Your task to perform on an android device: check android version Image 0: 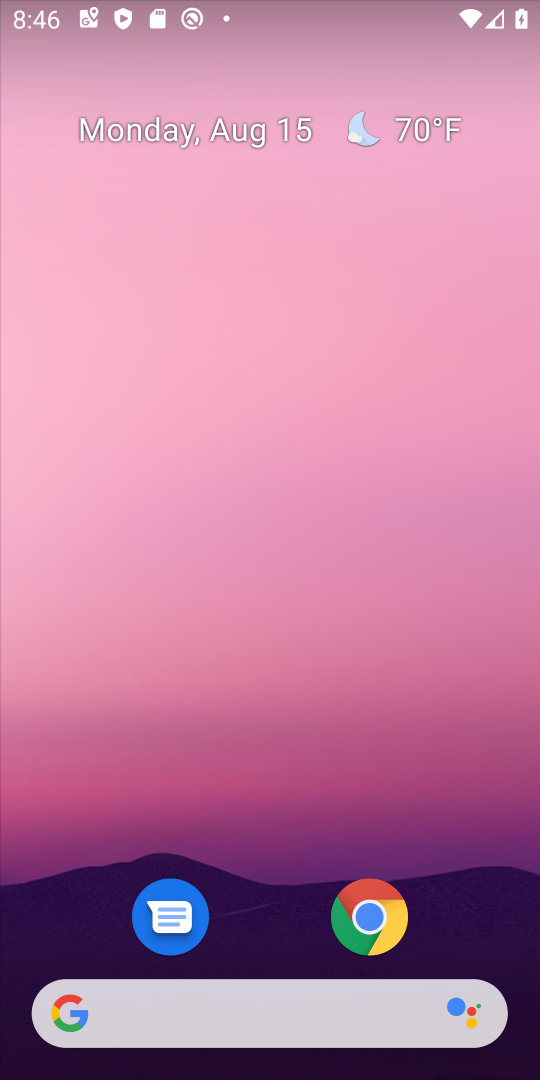
Step 0: drag from (286, 745) to (286, 0)
Your task to perform on an android device: check android version Image 1: 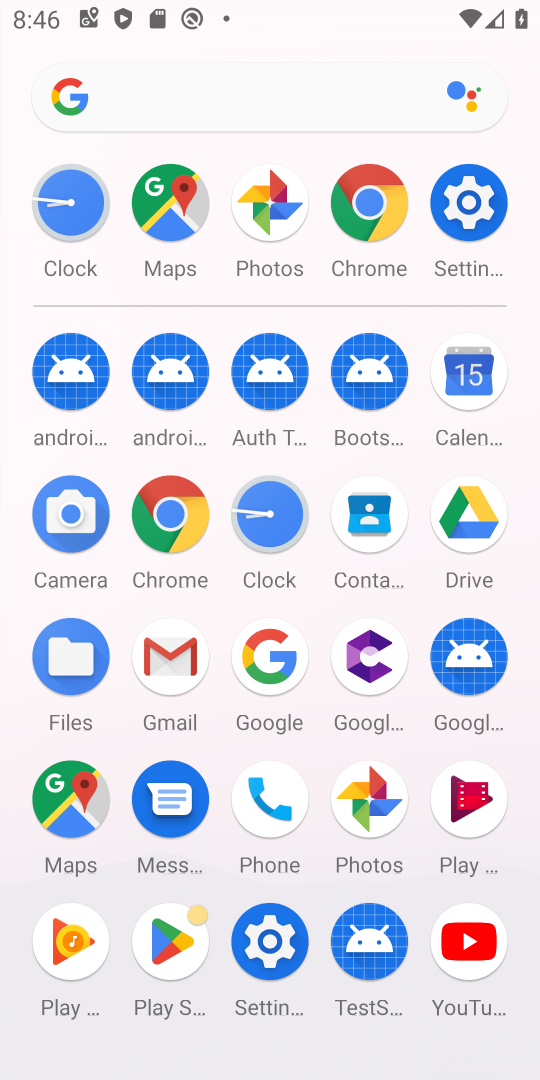
Step 1: click (461, 202)
Your task to perform on an android device: check android version Image 2: 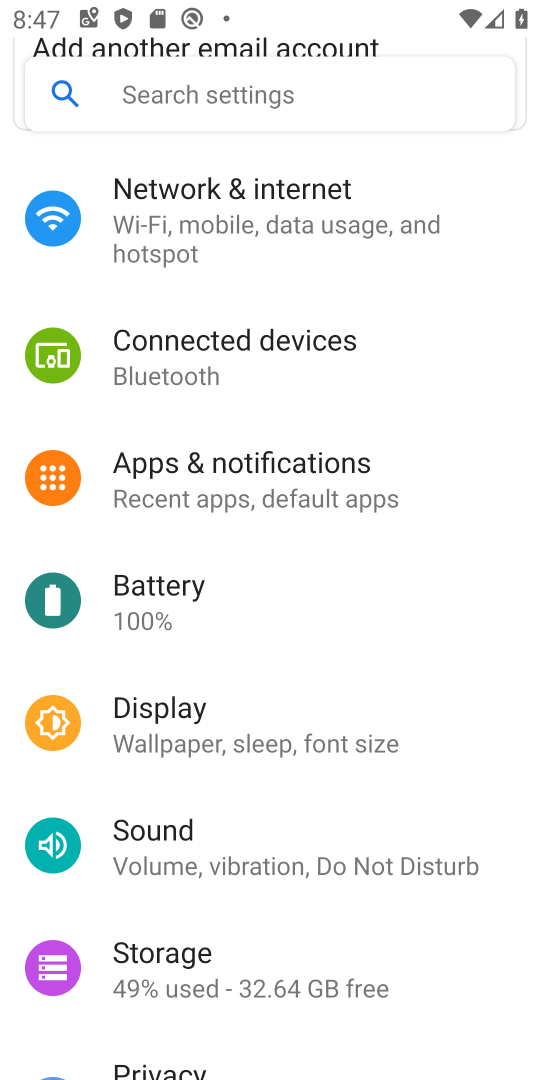
Step 2: drag from (263, 784) to (355, 2)
Your task to perform on an android device: check android version Image 3: 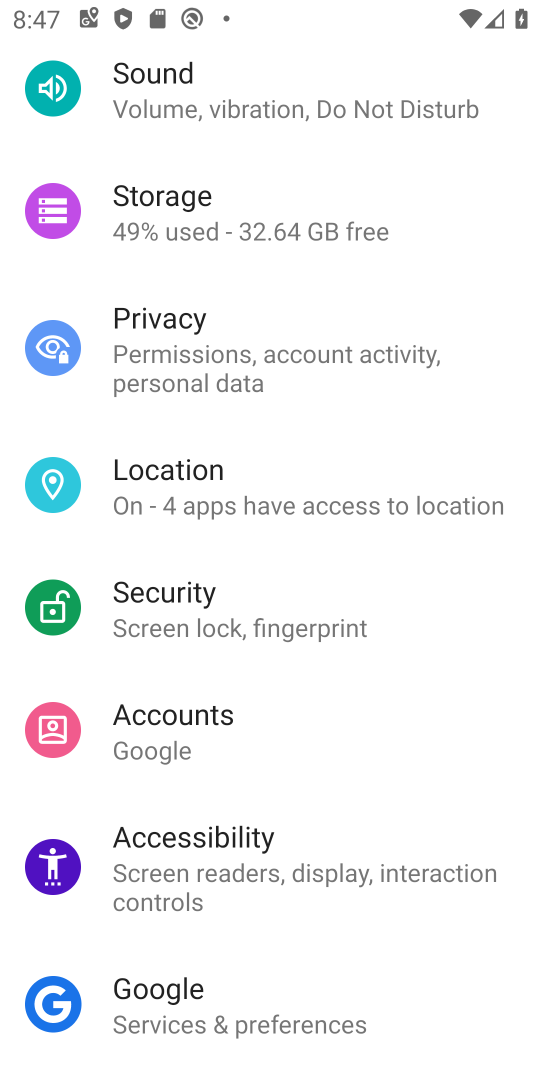
Step 3: drag from (260, 561) to (335, 3)
Your task to perform on an android device: check android version Image 4: 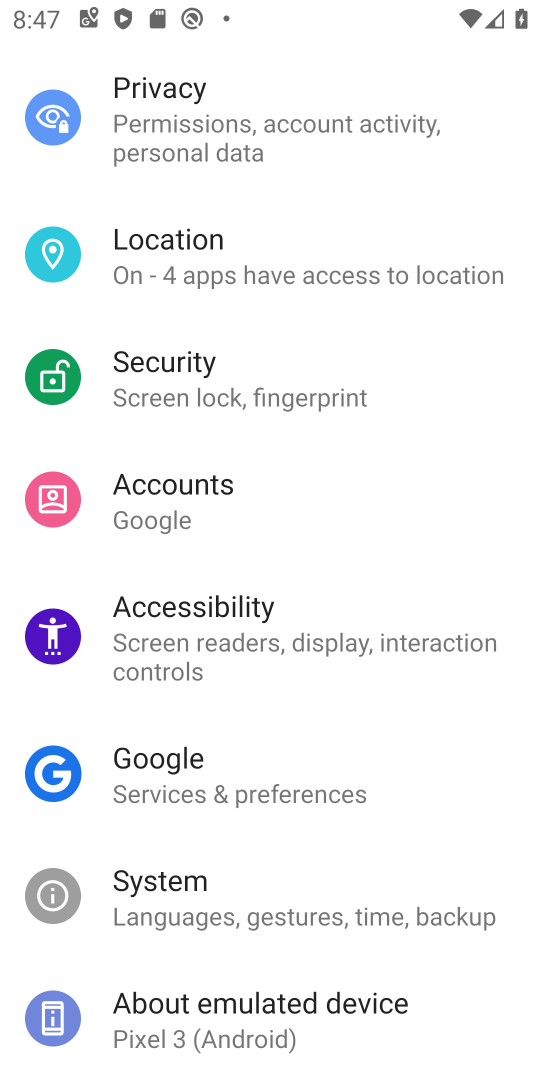
Step 4: click (292, 1008)
Your task to perform on an android device: check android version Image 5: 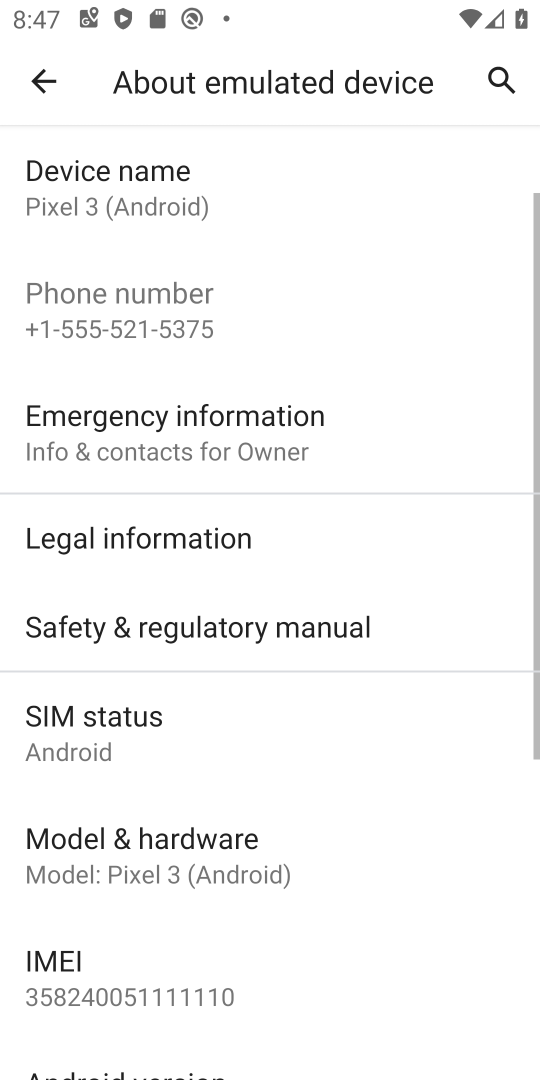
Step 5: drag from (299, 804) to (386, 163)
Your task to perform on an android device: check android version Image 6: 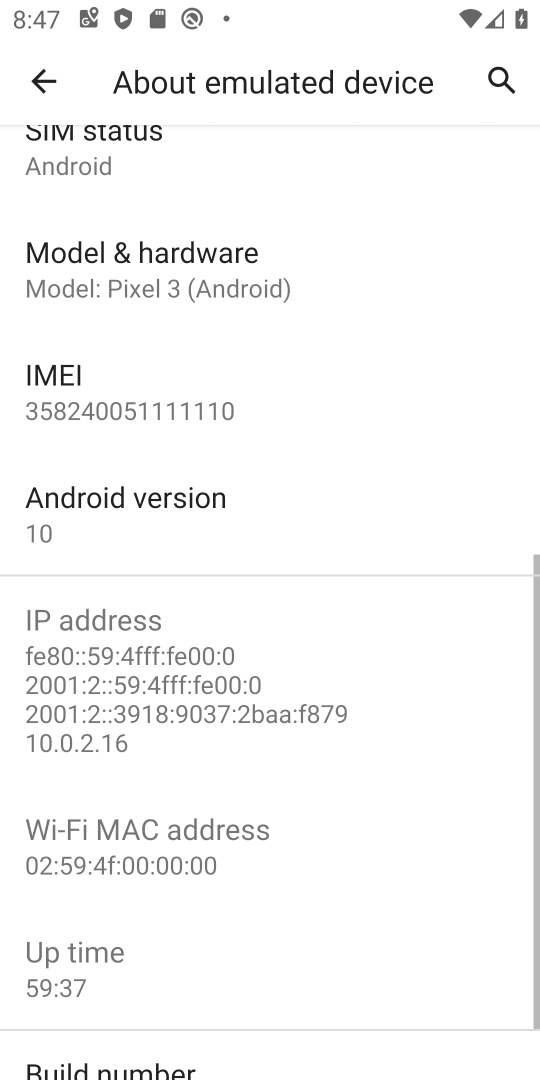
Step 6: click (213, 520)
Your task to perform on an android device: check android version Image 7: 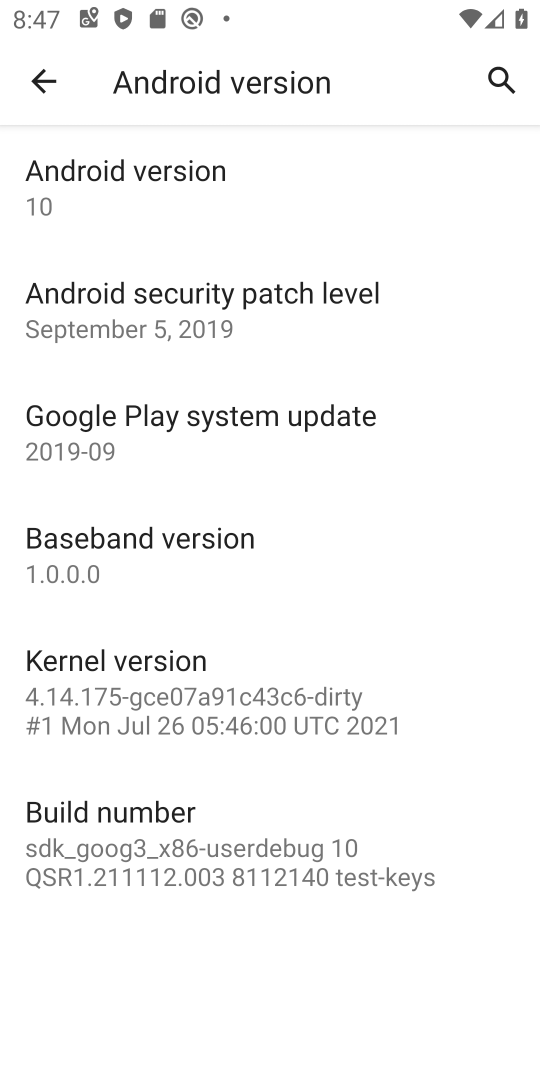
Step 7: task complete